Your task to perform on an android device: Check the weather Image 0: 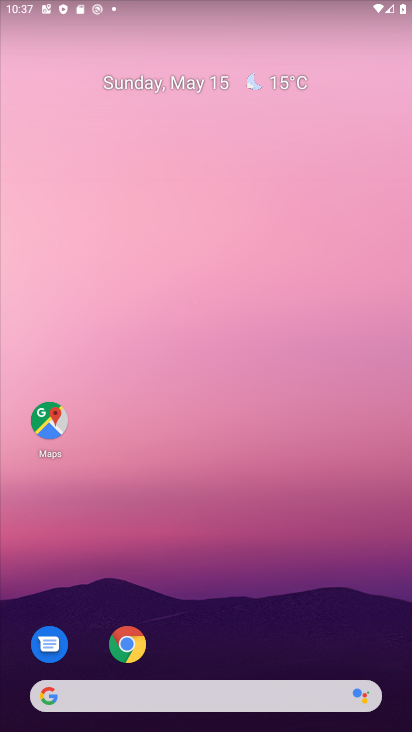
Step 0: drag from (181, 679) to (216, 103)
Your task to perform on an android device: Check the weather Image 1: 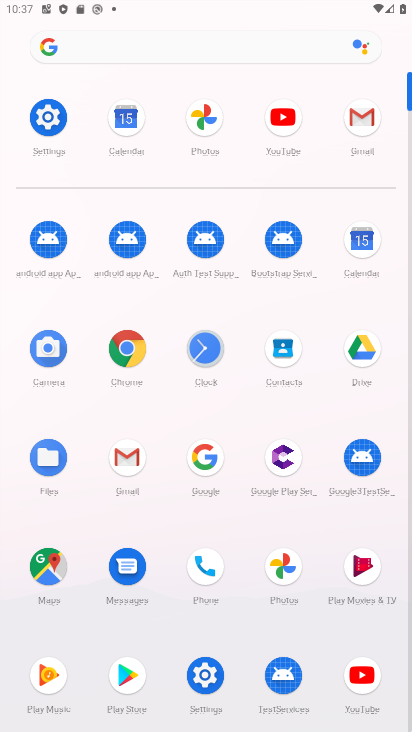
Step 1: click (211, 462)
Your task to perform on an android device: Check the weather Image 2: 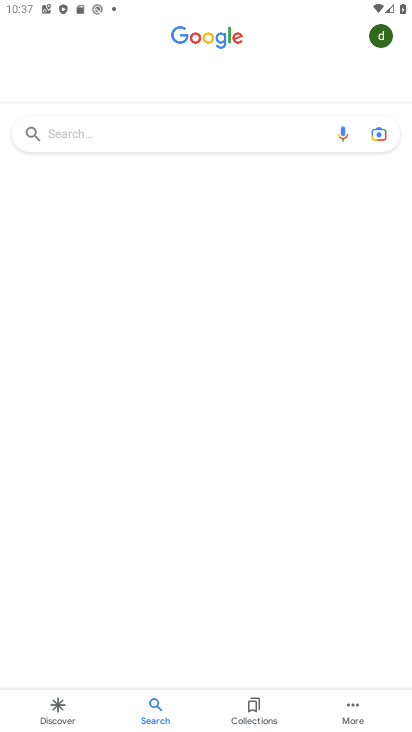
Step 2: click (126, 131)
Your task to perform on an android device: Check the weather Image 3: 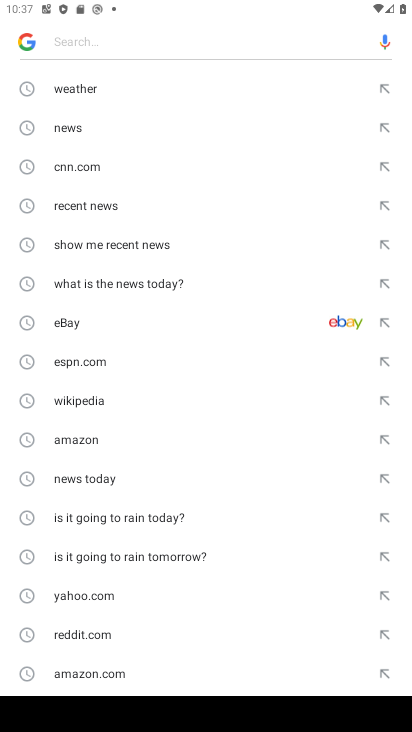
Step 3: click (76, 92)
Your task to perform on an android device: Check the weather Image 4: 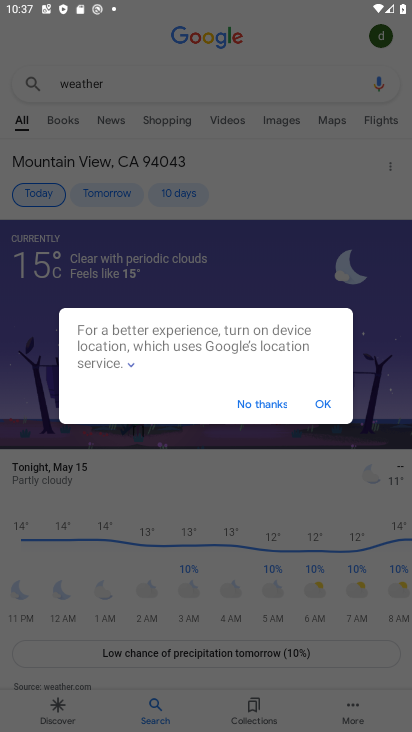
Step 4: task complete